Your task to perform on an android device: snooze an email in the gmail app Image 0: 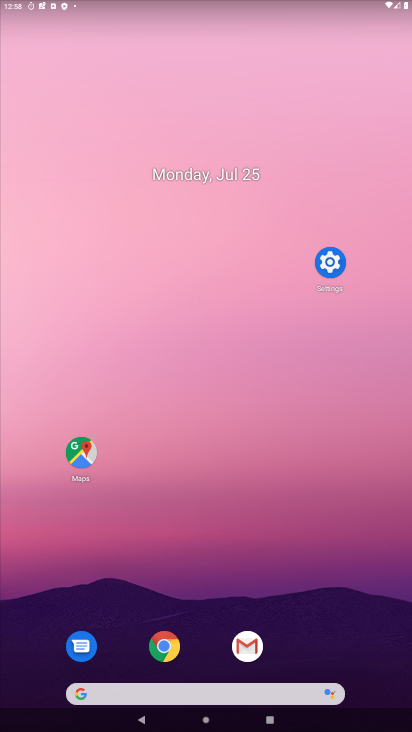
Step 0: click (240, 639)
Your task to perform on an android device: snooze an email in the gmail app Image 1: 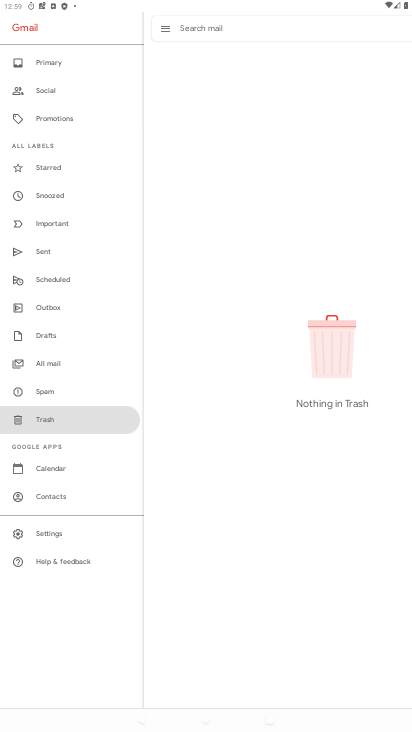
Step 1: click (66, 190)
Your task to perform on an android device: snooze an email in the gmail app Image 2: 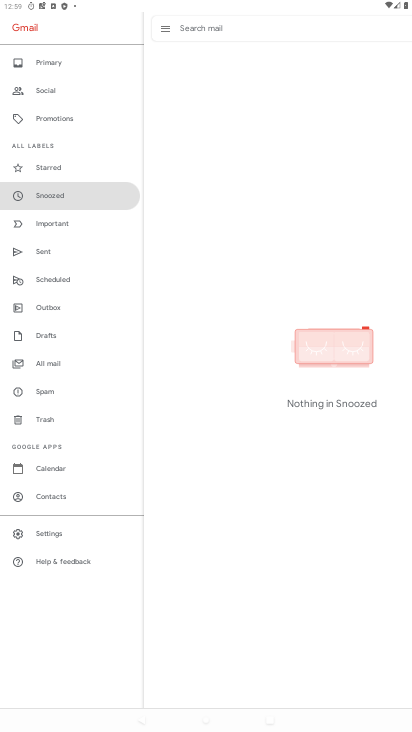
Step 2: task complete